Your task to perform on an android device: check data usage Image 0: 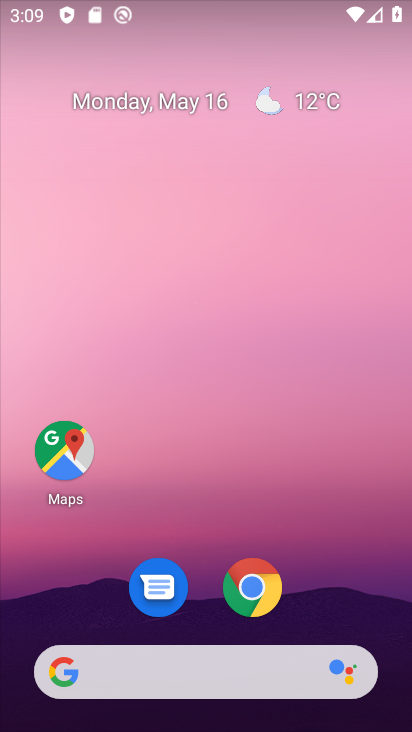
Step 0: drag from (390, 682) to (377, 84)
Your task to perform on an android device: check data usage Image 1: 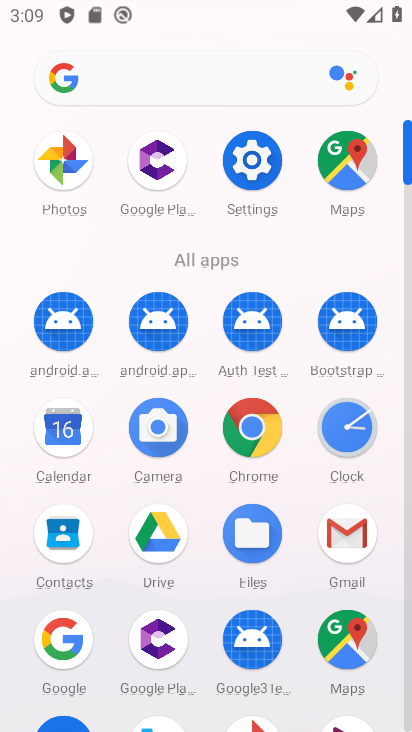
Step 1: click (259, 164)
Your task to perform on an android device: check data usage Image 2: 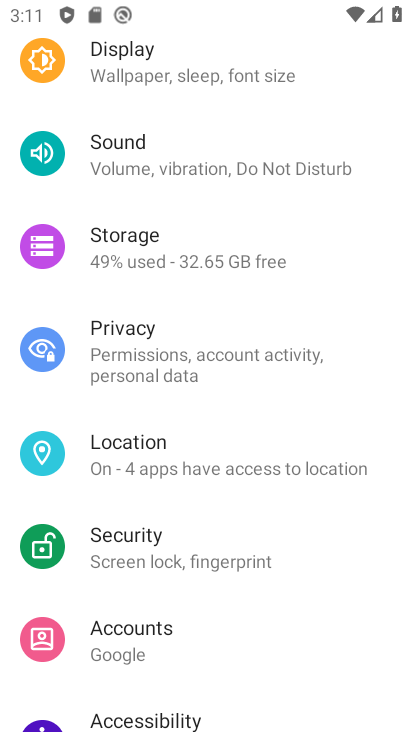
Step 2: click (309, 419)
Your task to perform on an android device: check data usage Image 3: 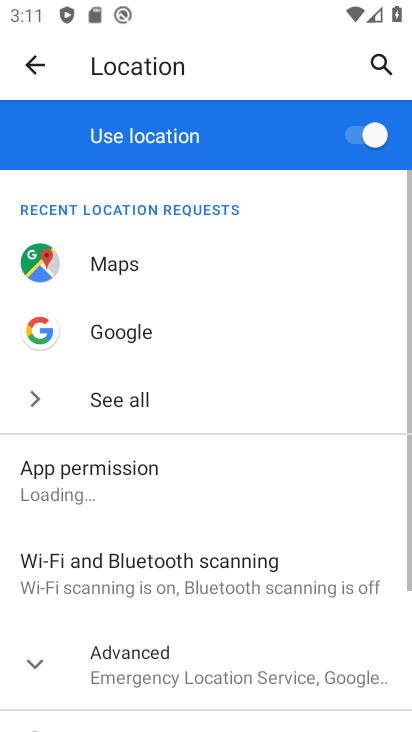
Step 3: drag from (347, 87) to (350, 452)
Your task to perform on an android device: check data usage Image 4: 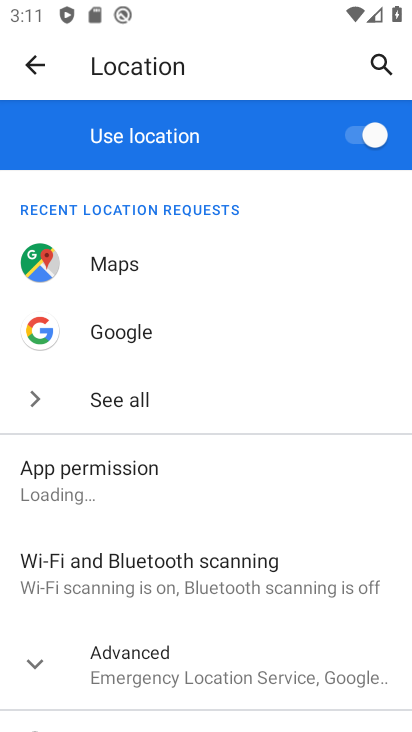
Step 4: click (46, 64)
Your task to perform on an android device: check data usage Image 5: 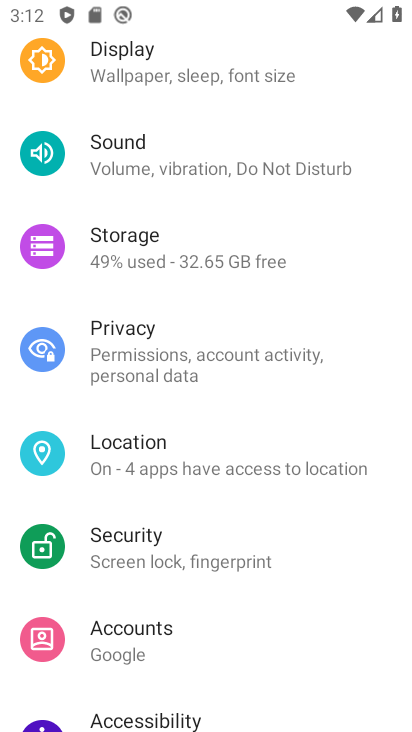
Step 5: drag from (342, 74) to (342, 548)
Your task to perform on an android device: check data usage Image 6: 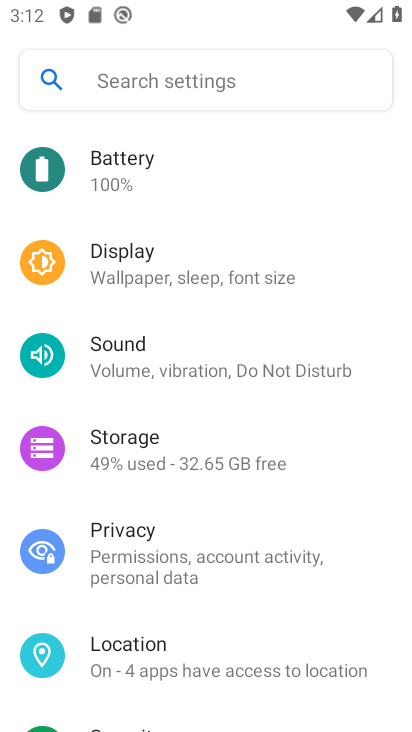
Step 6: drag from (290, 279) to (299, 606)
Your task to perform on an android device: check data usage Image 7: 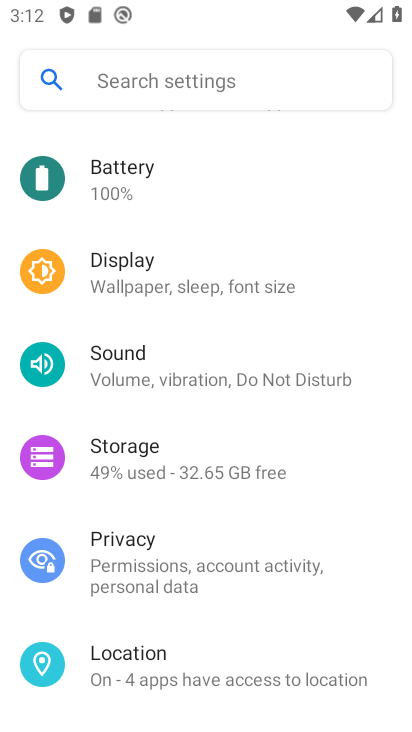
Step 7: drag from (300, 191) to (312, 580)
Your task to perform on an android device: check data usage Image 8: 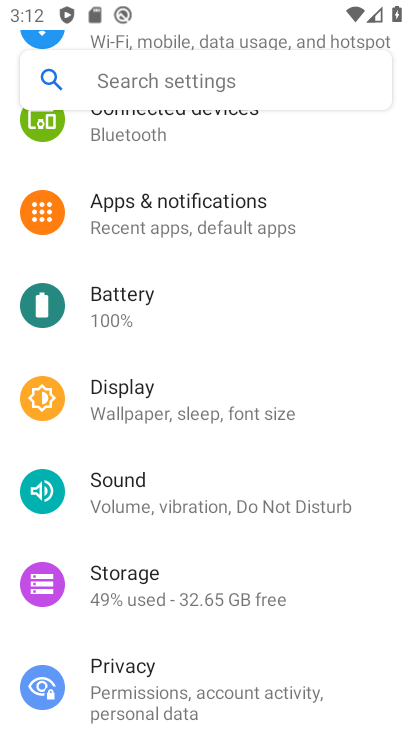
Step 8: drag from (304, 161) to (317, 462)
Your task to perform on an android device: check data usage Image 9: 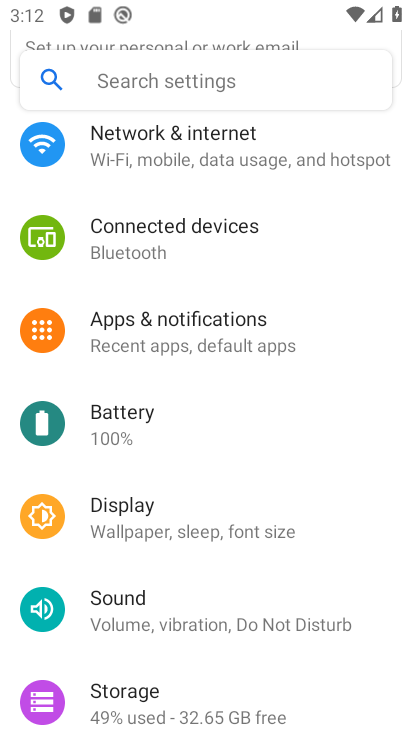
Step 9: click (165, 134)
Your task to perform on an android device: check data usage Image 10: 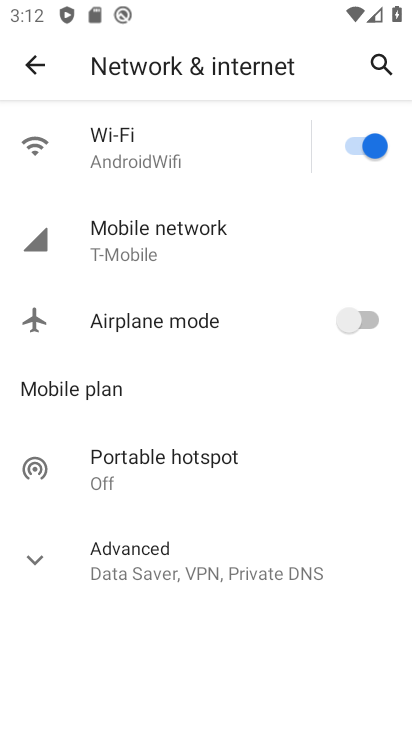
Step 10: click (145, 234)
Your task to perform on an android device: check data usage Image 11: 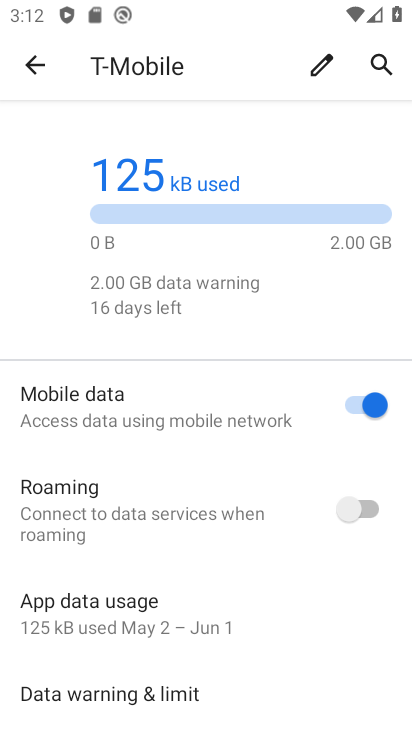
Step 11: task complete